Your task to perform on an android device: change timer sound Image 0: 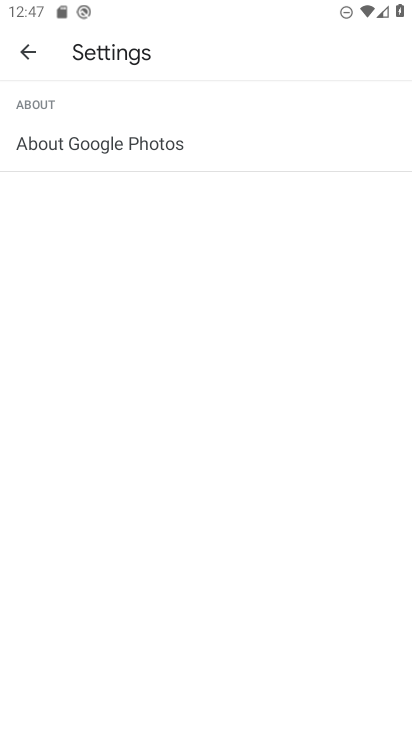
Step 0: press home button
Your task to perform on an android device: change timer sound Image 1: 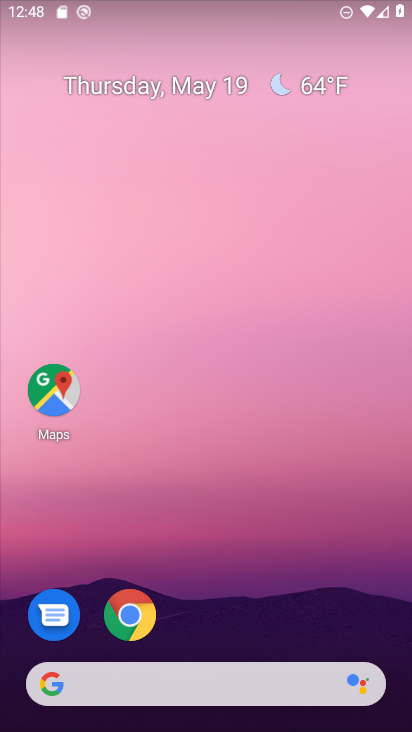
Step 1: drag from (235, 711) to (243, 170)
Your task to perform on an android device: change timer sound Image 2: 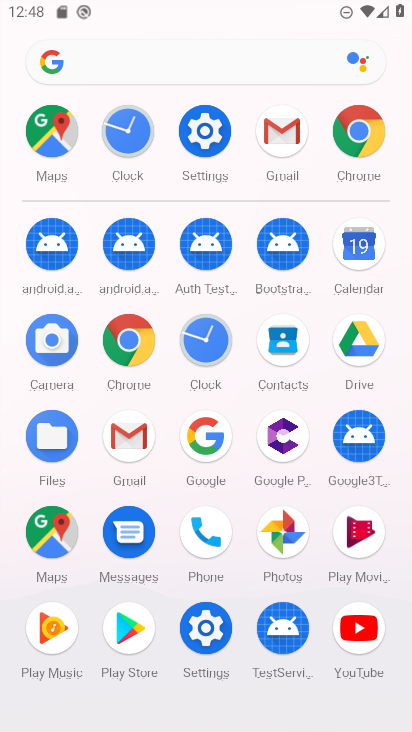
Step 2: click (201, 334)
Your task to perform on an android device: change timer sound Image 3: 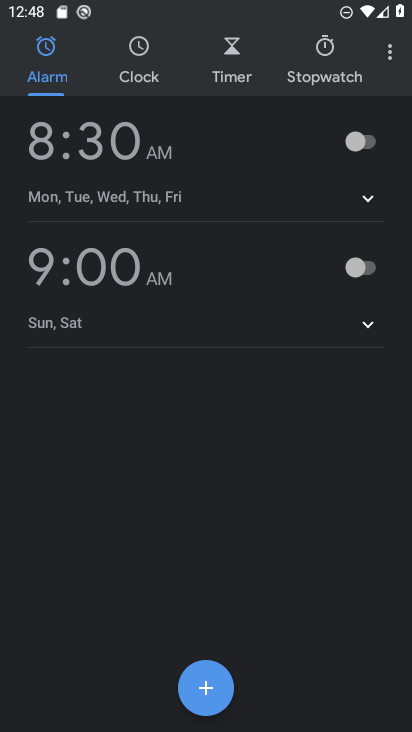
Step 3: click (379, 56)
Your task to perform on an android device: change timer sound Image 4: 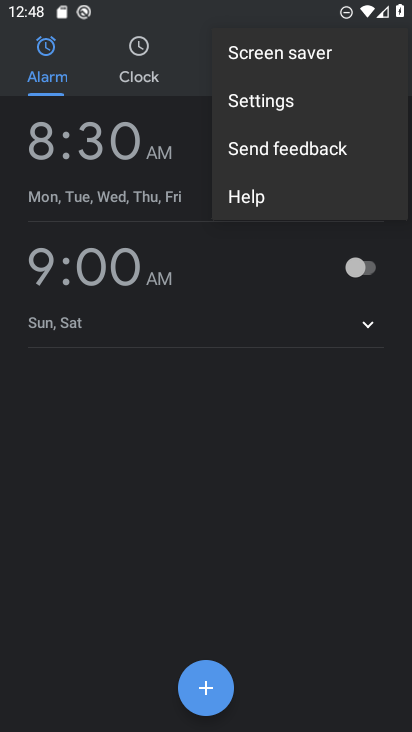
Step 4: click (284, 107)
Your task to perform on an android device: change timer sound Image 5: 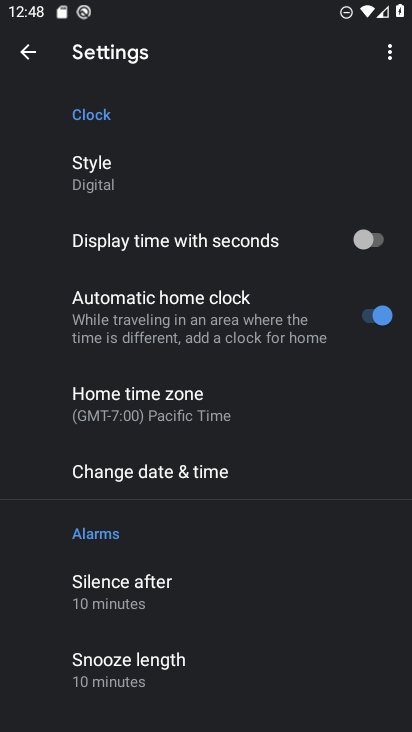
Step 5: drag from (213, 597) to (276, 137)
Your task to perform on an android device: change timer sound Image 6: 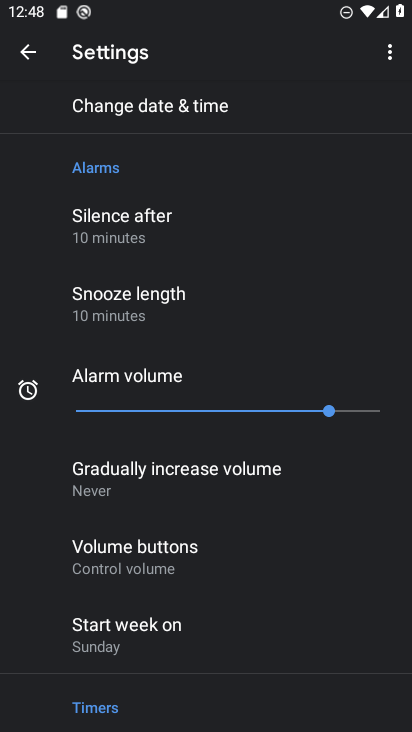
Step 6: drag from (156, 525) to (189, 361)
Your task to perform on an android device: change timer sound Image 7: 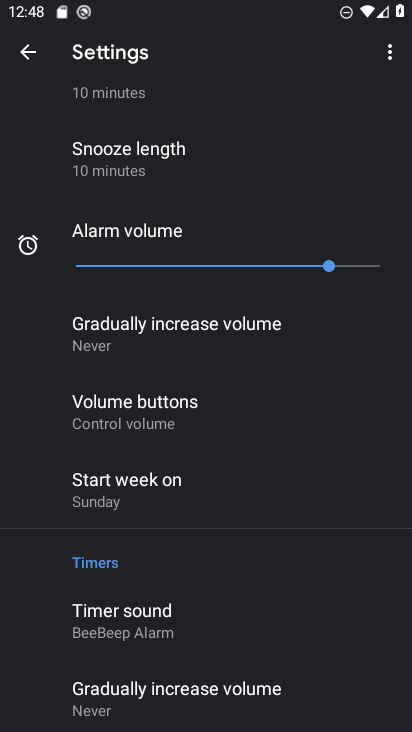
Step 7: click (122, 604)
Your task to perform on an android device: change timer sound Image 8: 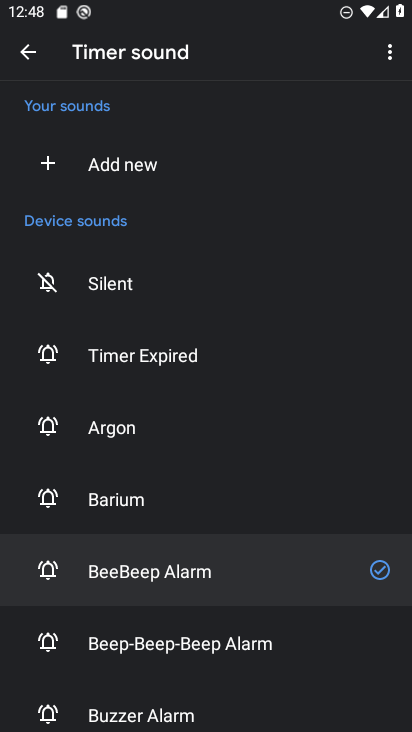
Step 8: click (129, 635)
Your task to perform on an android device: change timer sound Image 9: 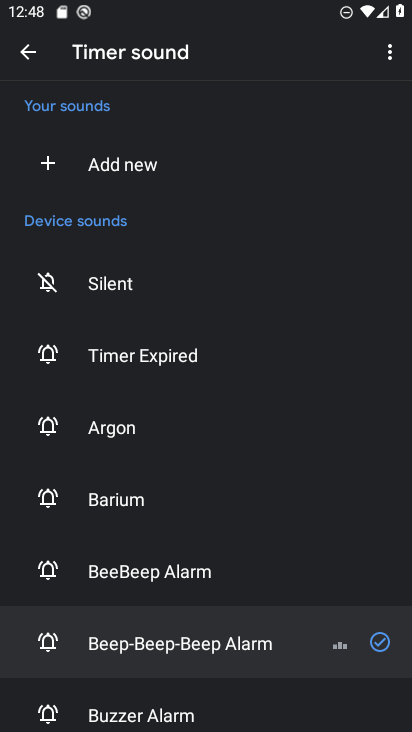
Step 9: task complete